Your task to perform on an android device: Clear the shopping cart on walmart.com. Image 0: 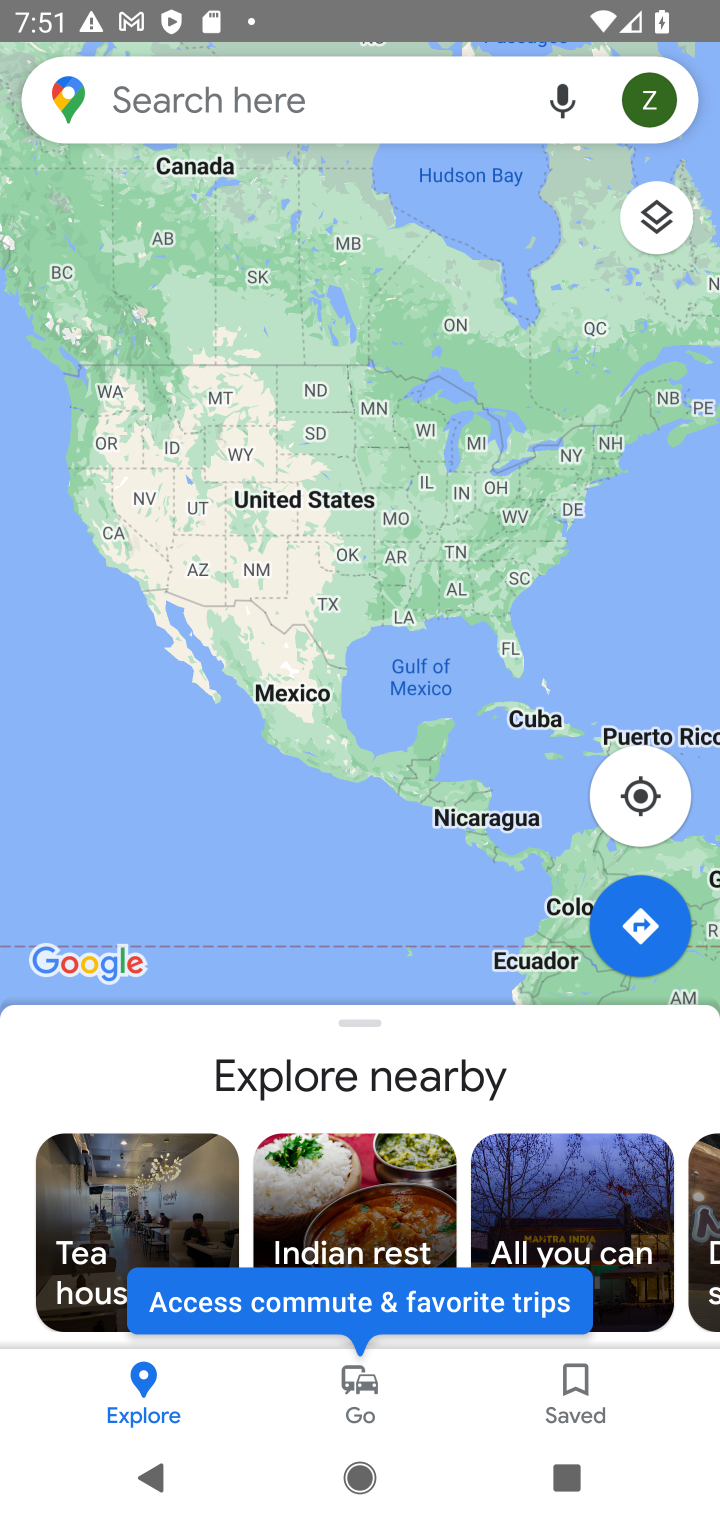
Step 0: press home button
Your task to perform on an android device: Clear the shopping cart on walmart.com. Image 1: 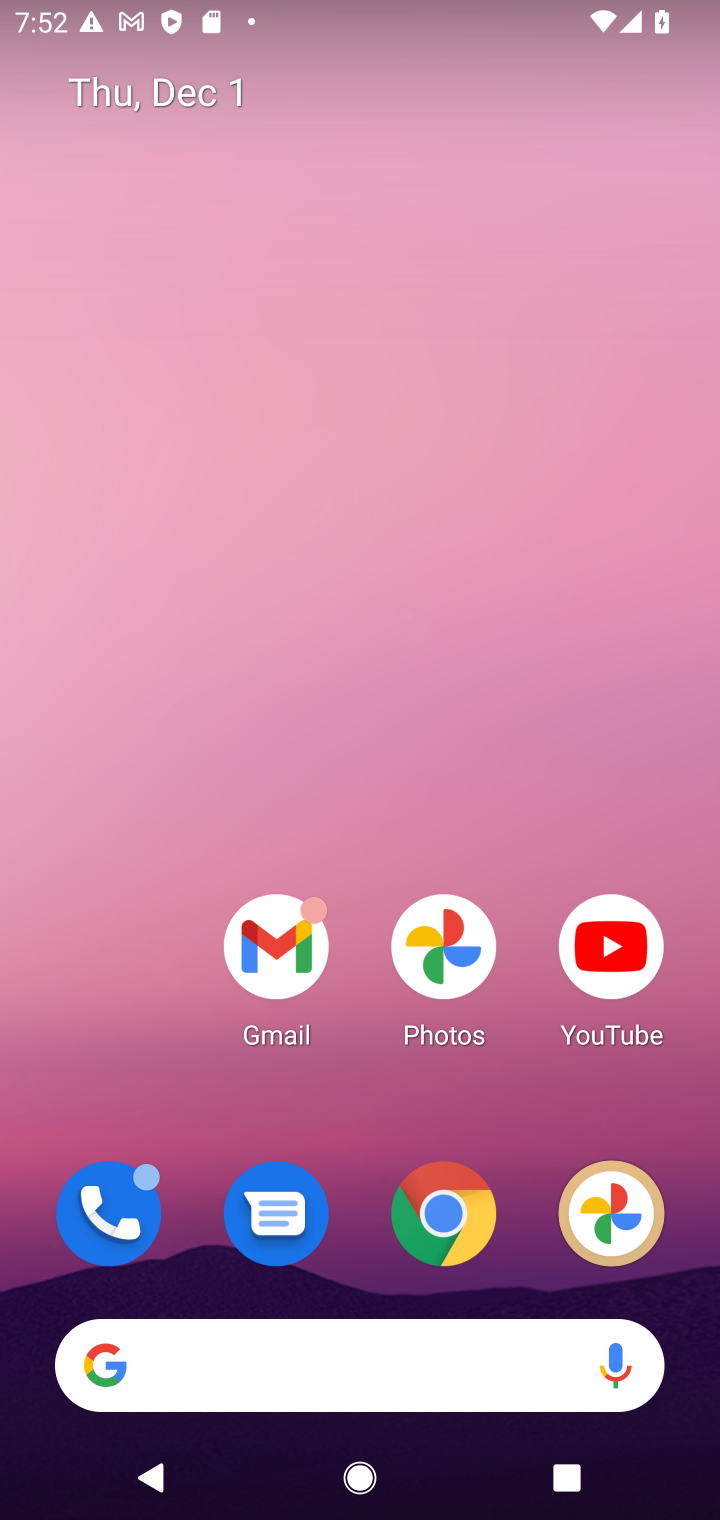
Step 1: click (445, 1232)
Your task to perform on an android device: Clear the shopping cart on walmart.com. Image 2: 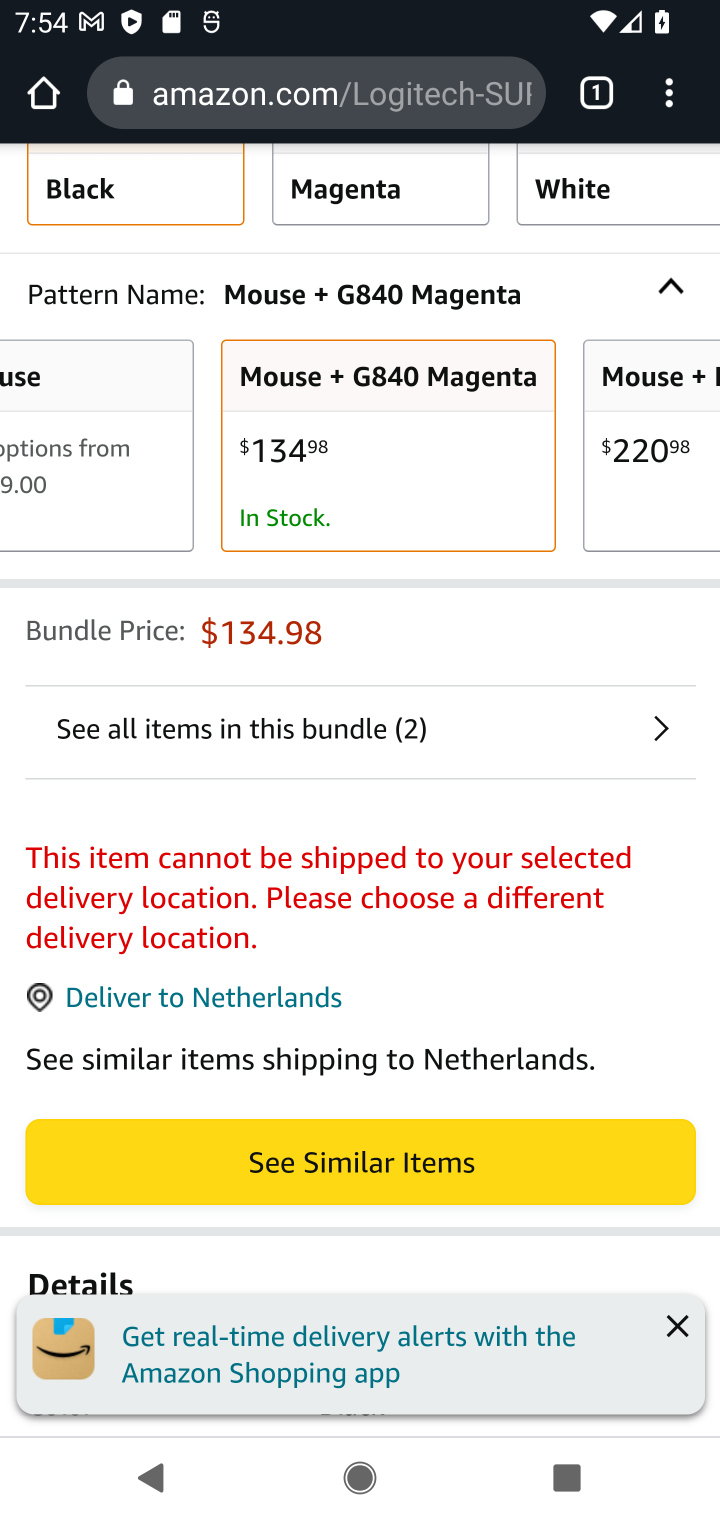
Step 2: click (264, 97)
Your task to perform on an android device: Clear the shopping cart on walmart.com. Image 3: 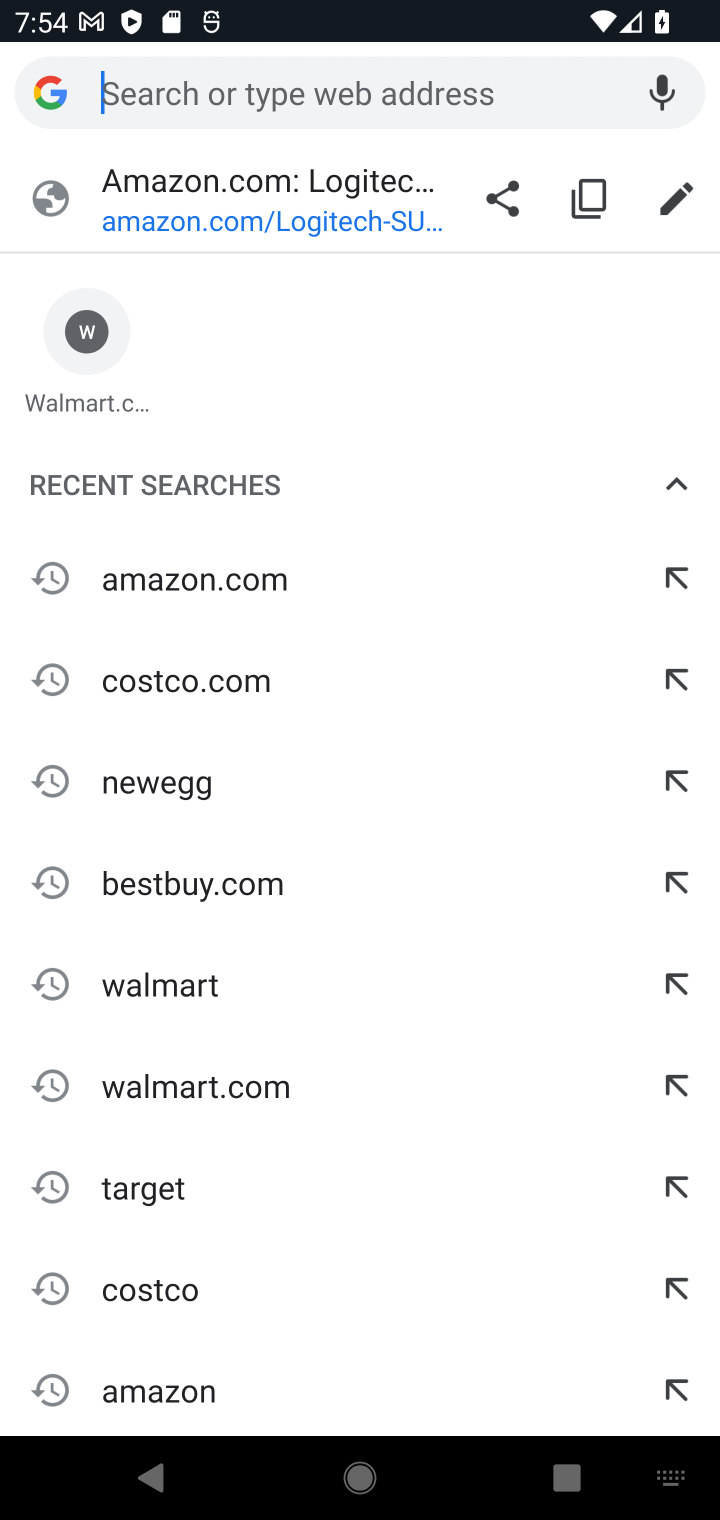
Step 3: click (189, 982)
Your task to perform on an android device: Clear the shopping cart on walmart.com. Image 4: 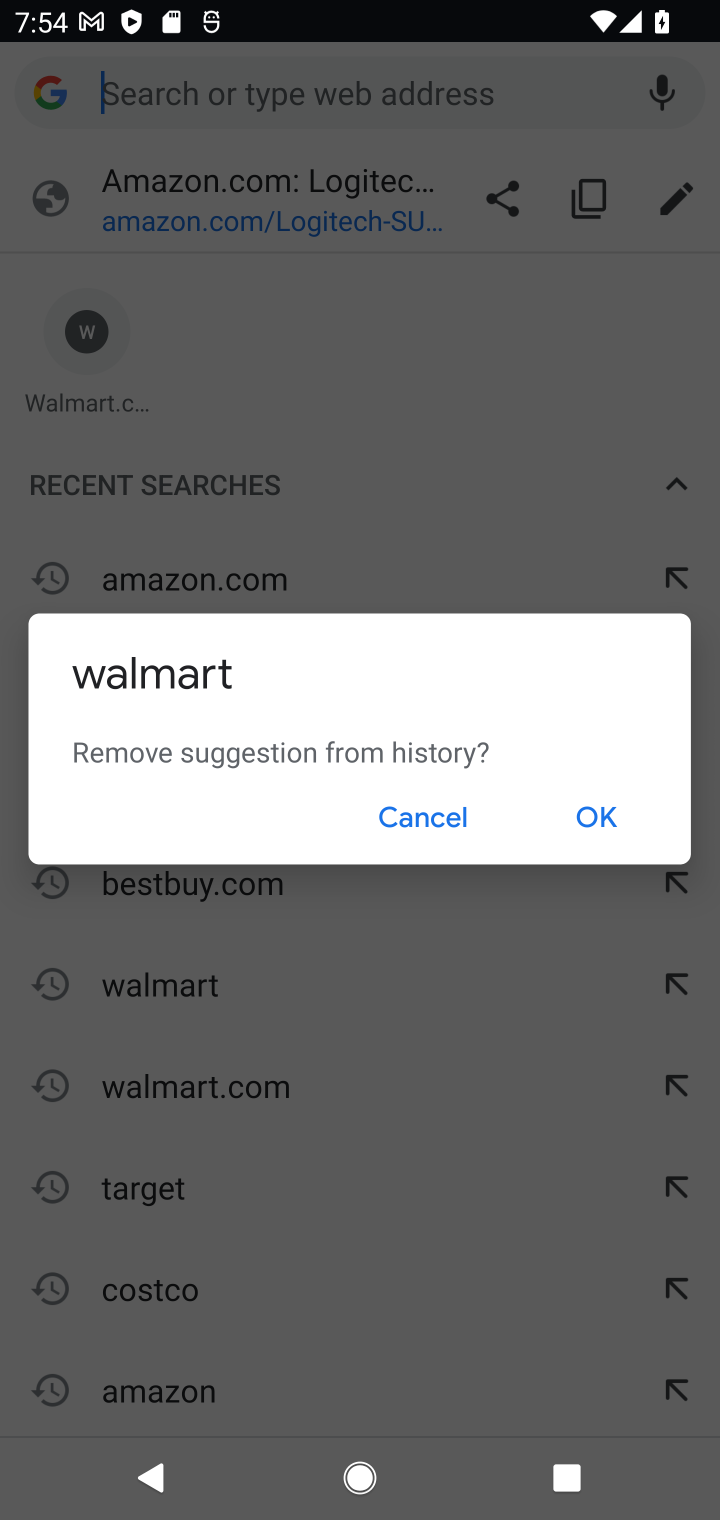
Step 4: click (422, 812)
Your task to perform on an android device: Clear the shopping cart on walmart.com. Image 5: 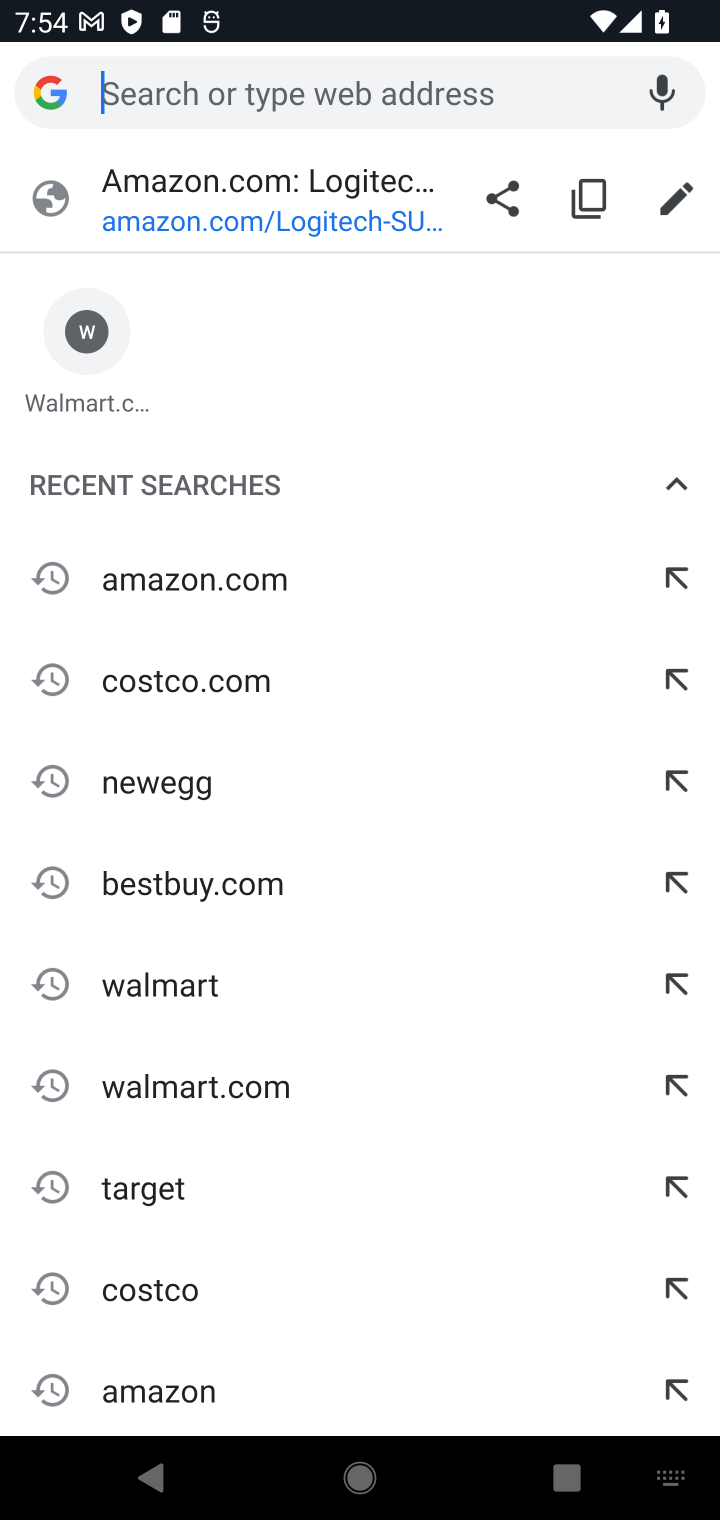
Step 5: click (195, 988)
Your task to perform on an android device: Clear the shopping cart on walmart.com. Image 6: 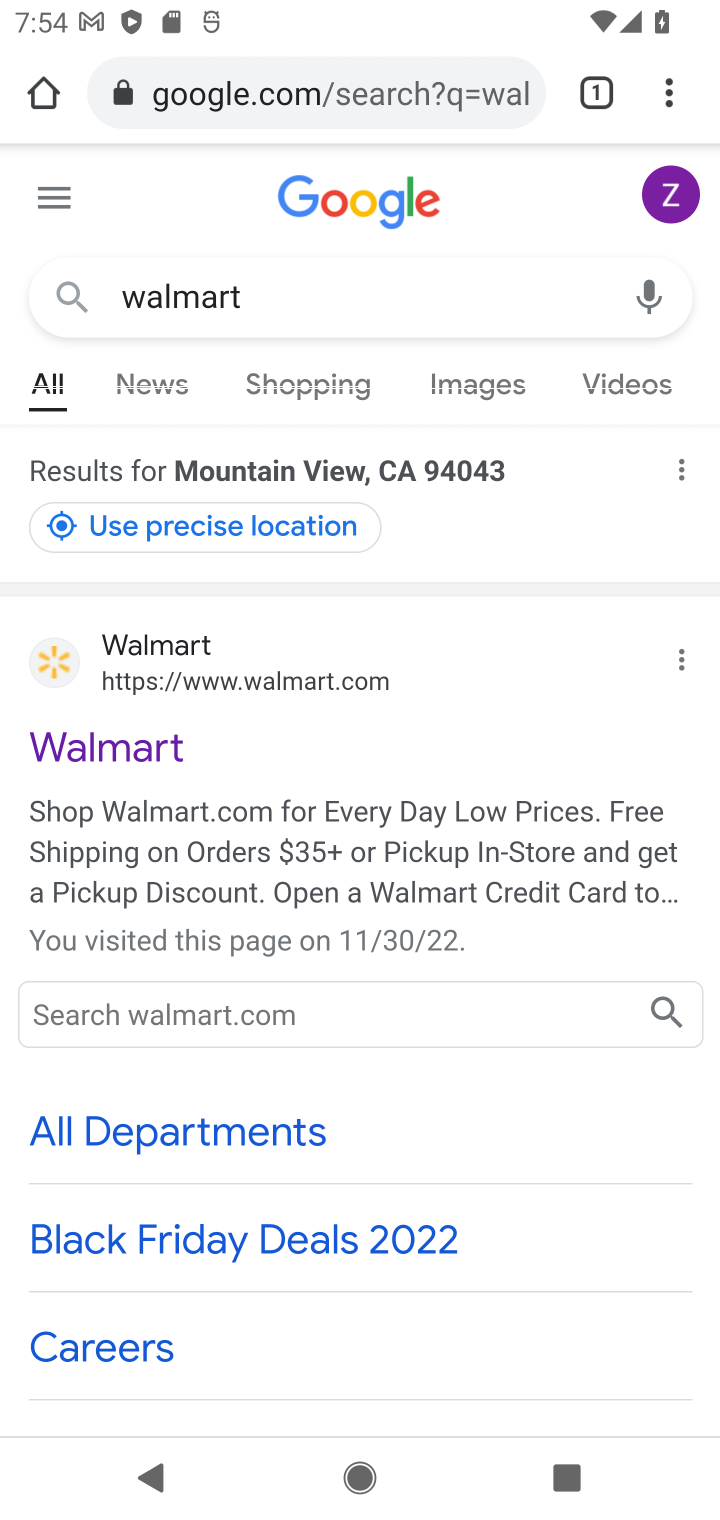
Step 6: click (129, 738)
Your task to perform on an android device: Clear the shopping cart on walmart.com. Image 7: 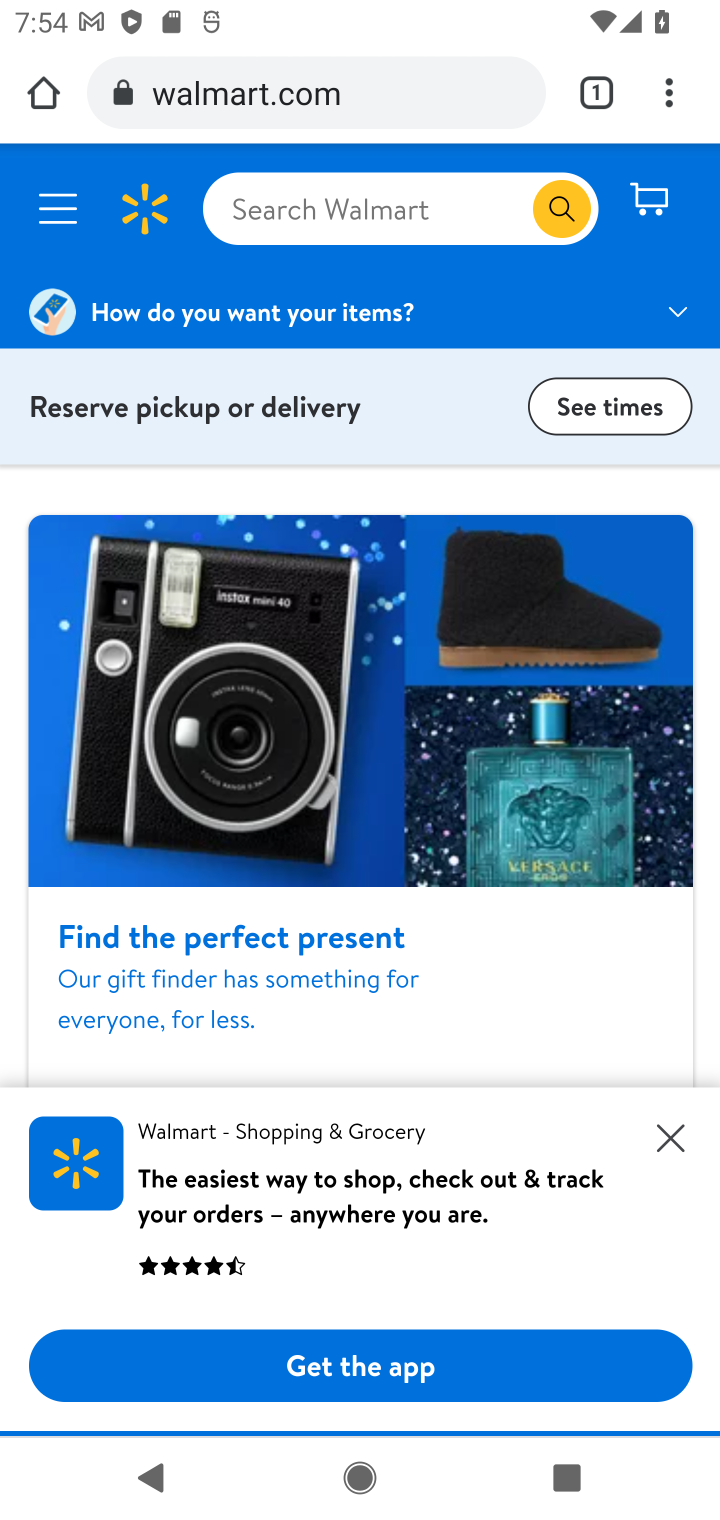
Step 7: click (674, 1139)
Your task to perform on an android device: Clear the shopping cart on walmart.com. Image 8: 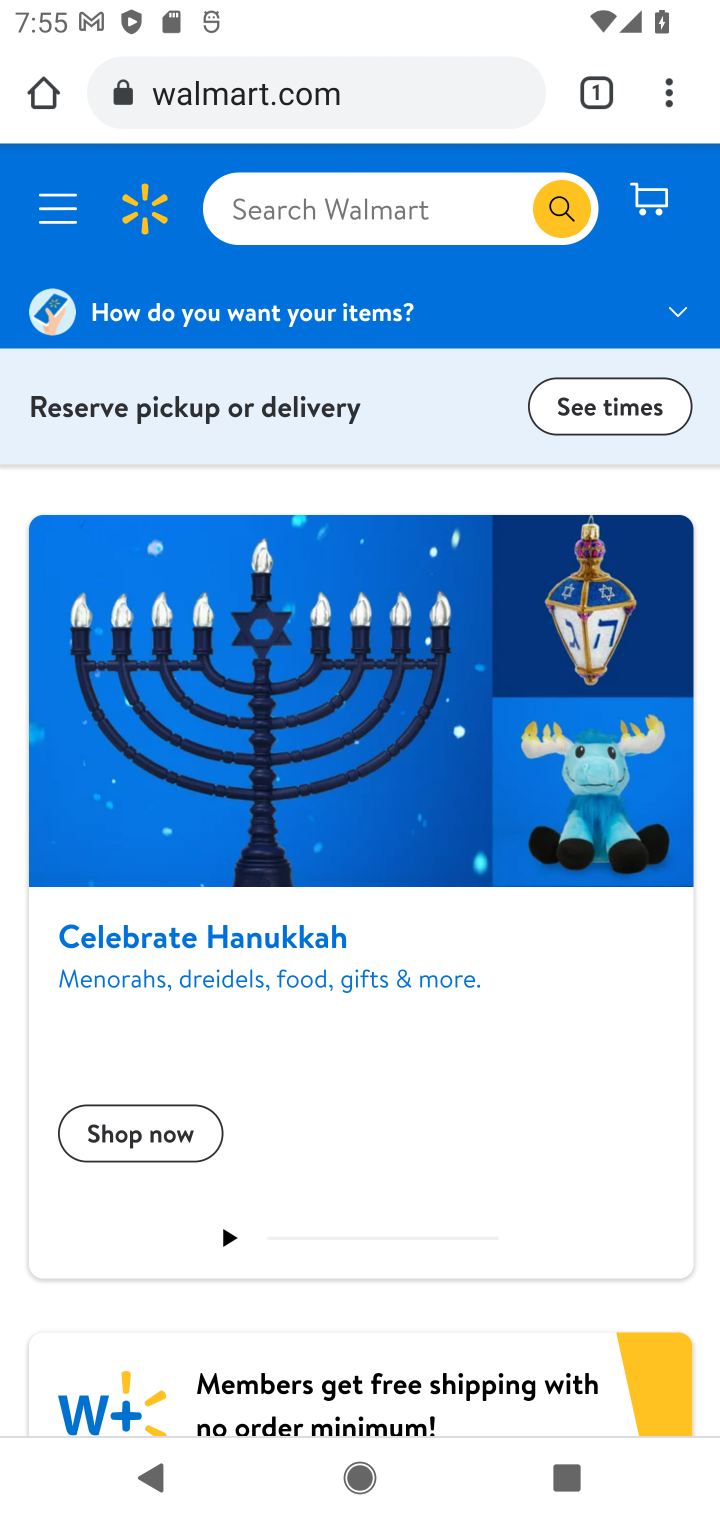
Step 8: click (651, 189)
Your task to perform on an android device: Clear the shopping cart on walmart.com. Image 9: 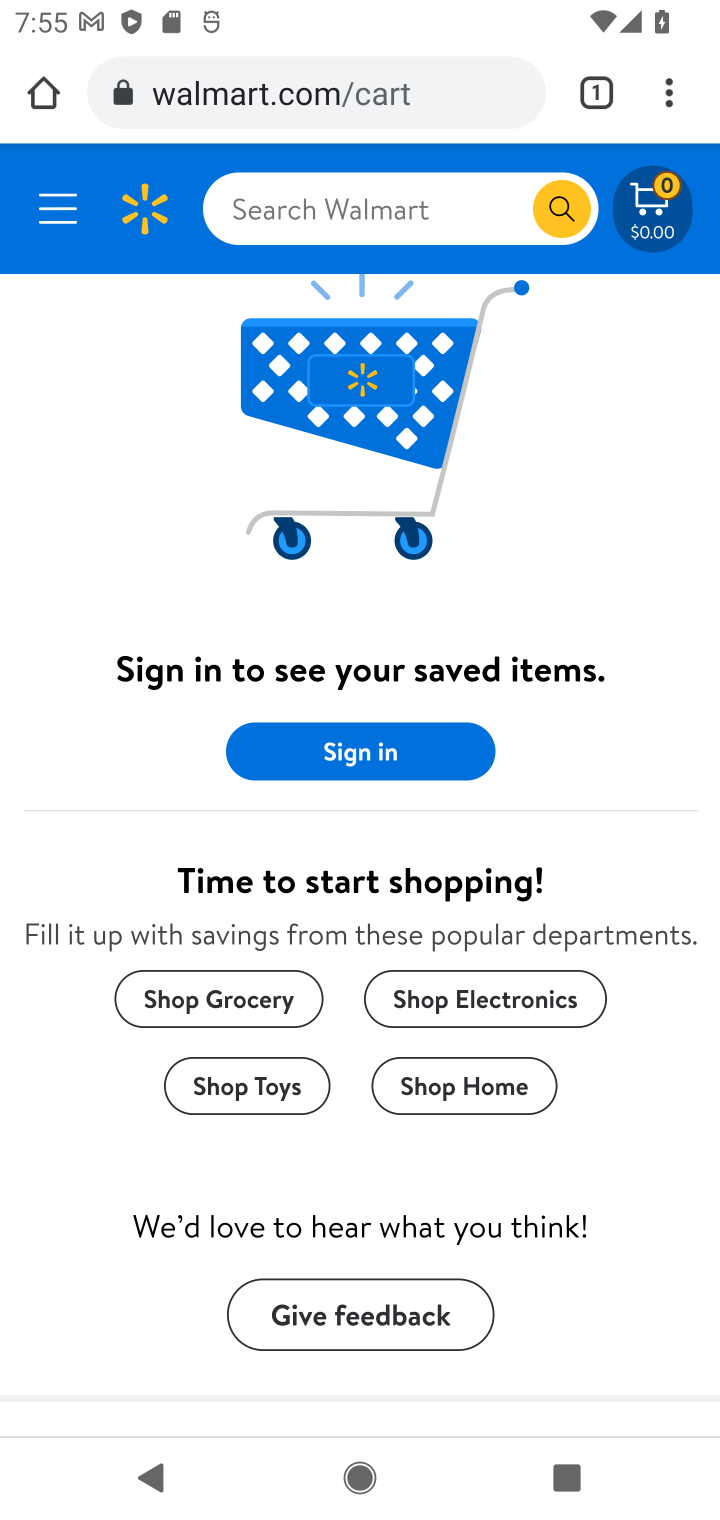
Step 9: task complete